Your task to perform on an android device: Go to network settings Image 0: 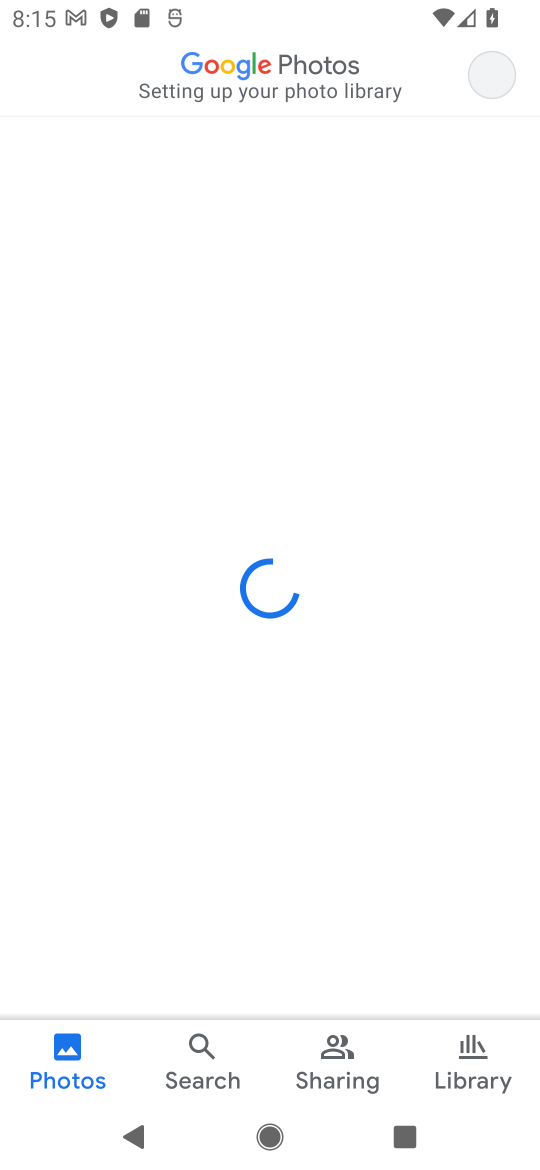
Step 0: press home button
Your task to perform on an android device: Go to network settings Image 1: 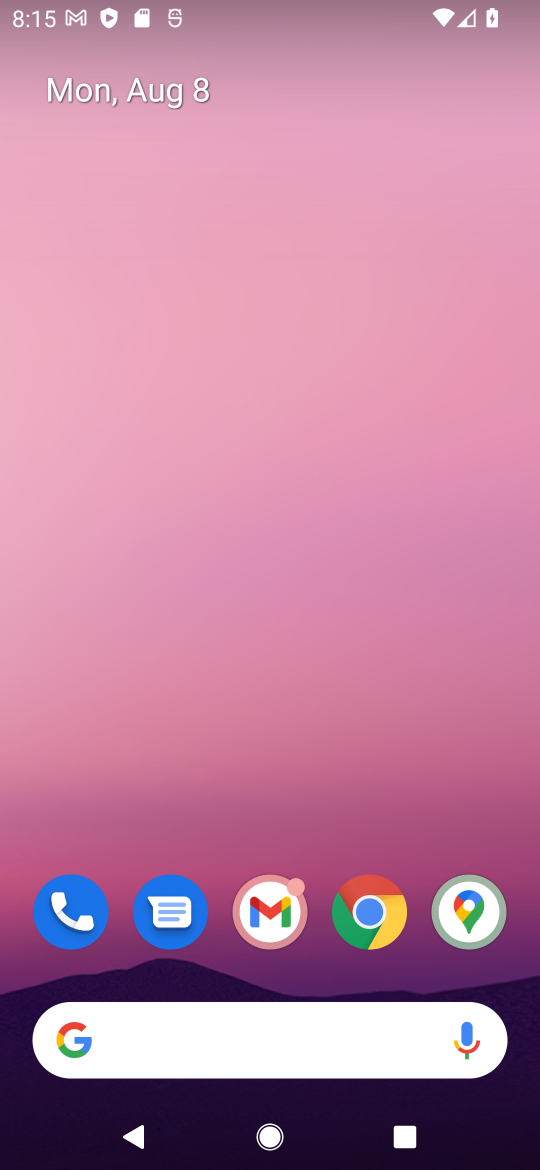
Step 1: drag from (504, 986) to (311, 0)
Your task to perform on an android device: Go to network settings Image 2: 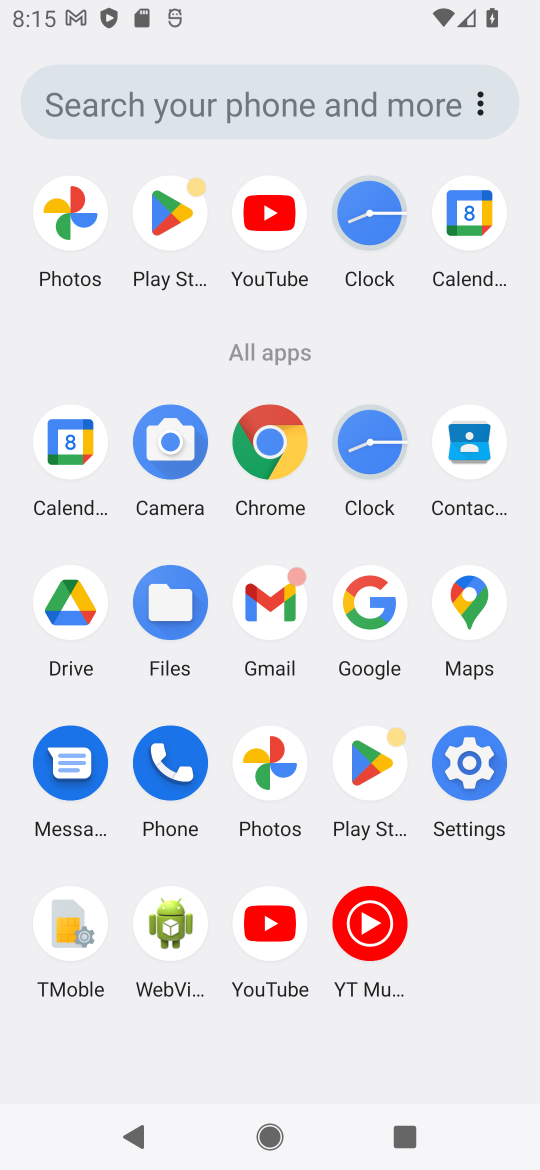
Step 2: click (461, 786)
Your task to perform on an android device: Go to network settings Image 3: 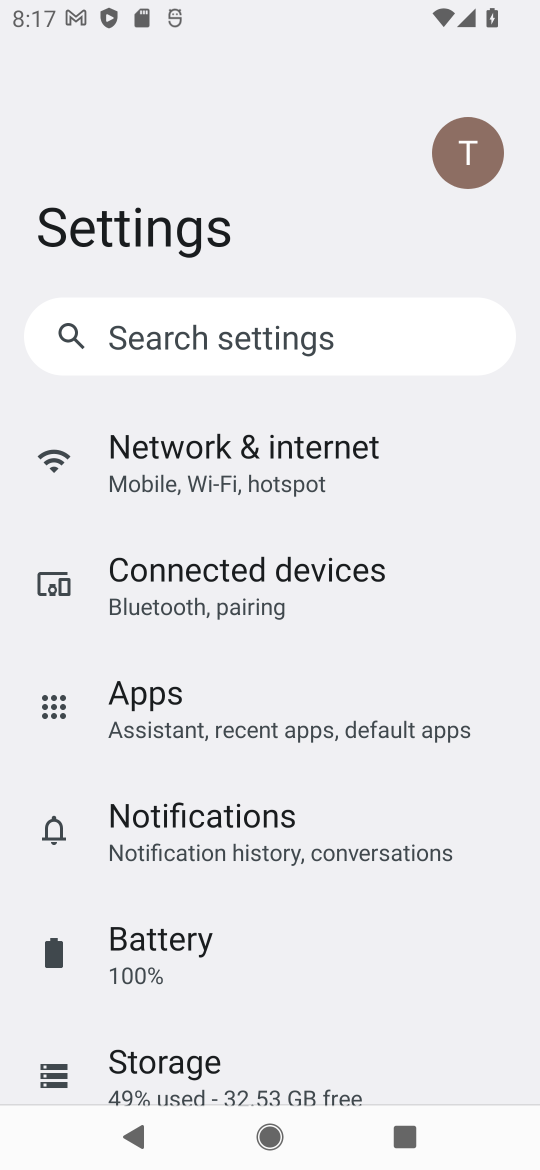
Step 3: click (207, 484)
Your task to perform on an android device: Go to network settings Image 4: 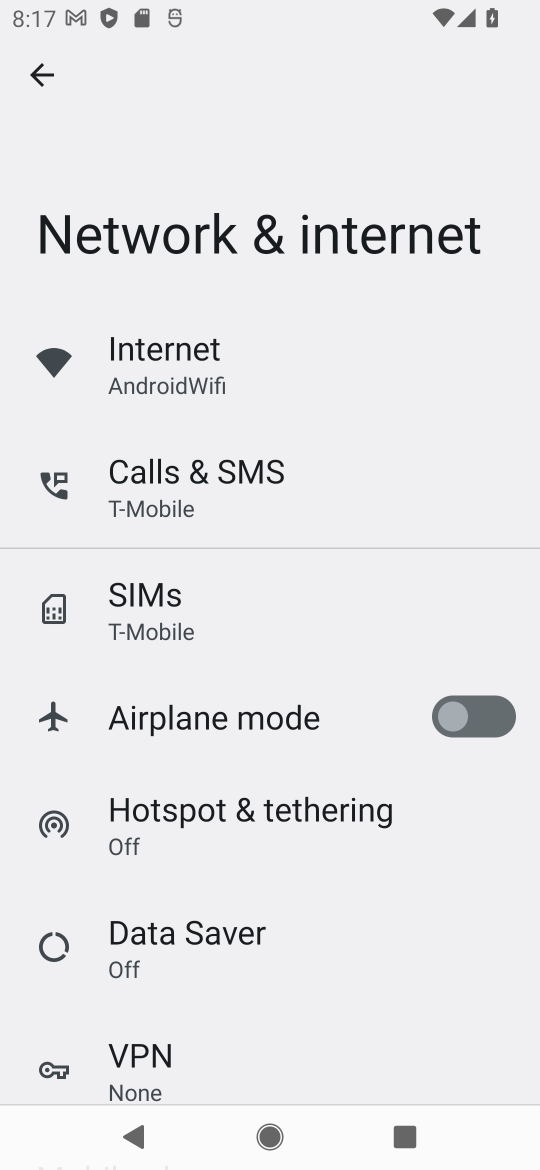
Step 4: task complete